Your task to perform on an android device: Open Youtube and go to the subscriptions tab Image 0: 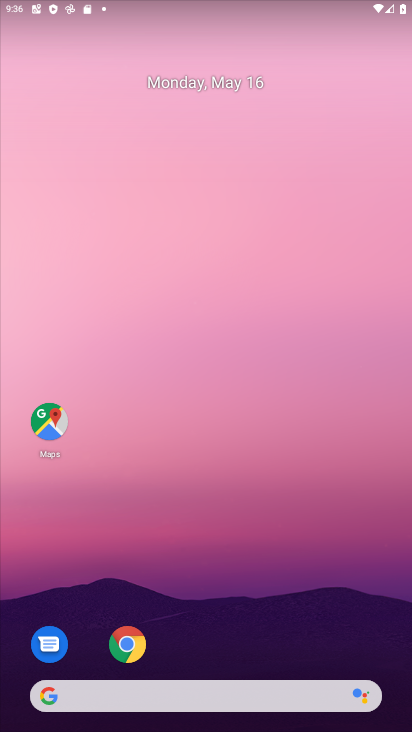
Step 0: drag from (235, 731) to (239, 14)
Your task to perform on an android device: Open Youtube and go to the subscriptions tab Image 1: 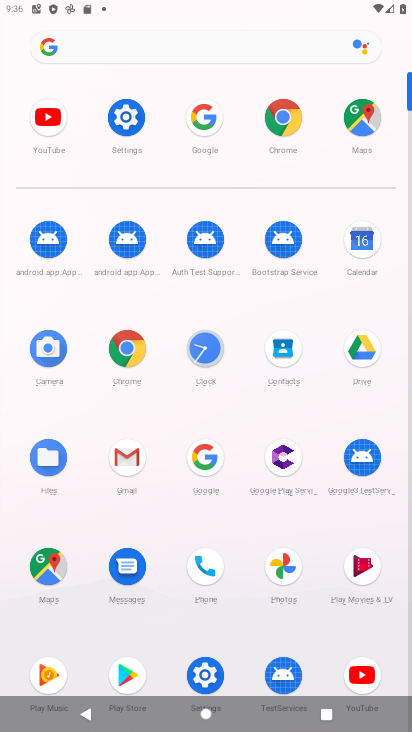
Step 1: click (353, 668)
Your task to perform on an android device: Open Youtube and go to the subscriptions tab Image 2: 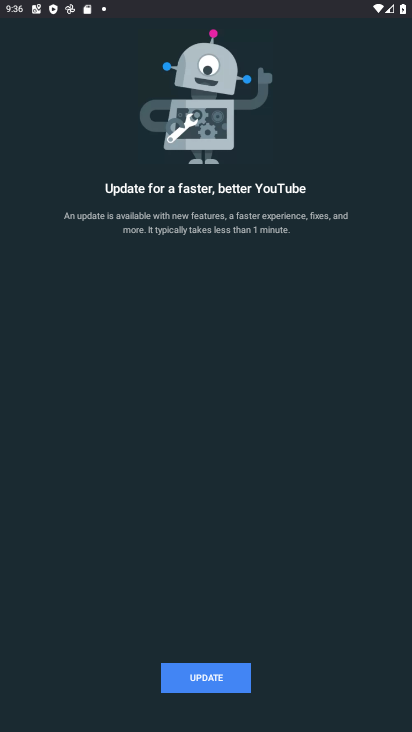
Step 2: click (188, 681)
Your task to perform on an android device: Open Youtube and go to the subscriptions tab Image 3: 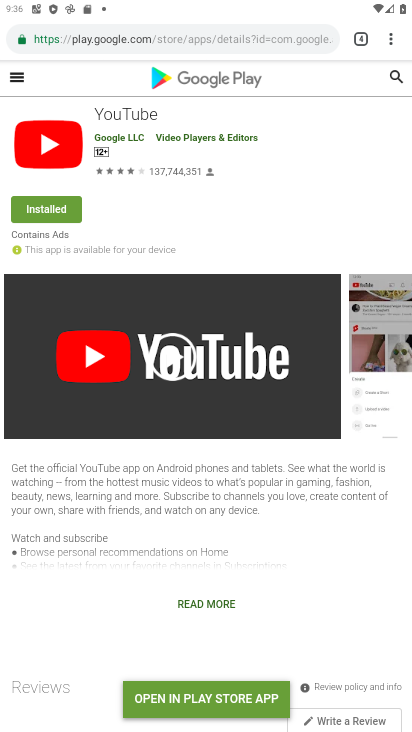
Step 3: click (252, 703)
Your task to perform on an android device: Open Youtube and go to the subscriptions tab Image 4: 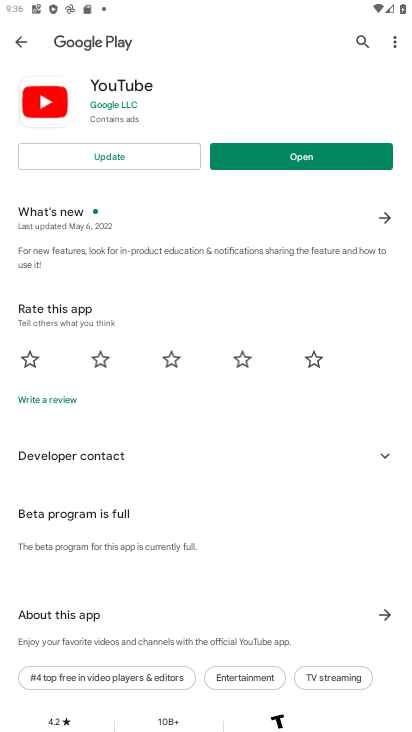
Step 4: click (162, 161)
Your task to perform on an android device: Open Youtube and go to the subscriptions tab Image 5: 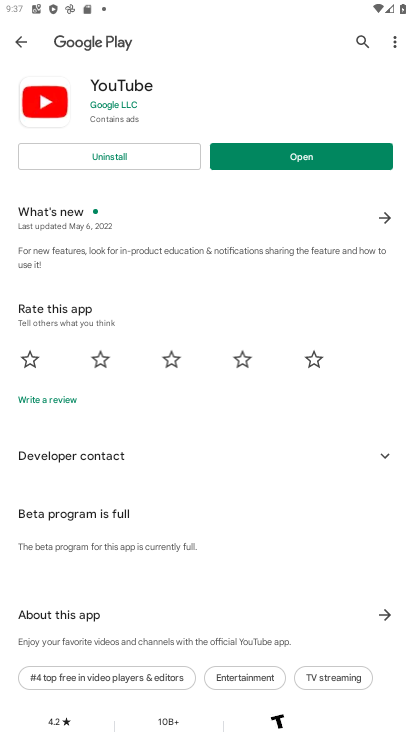
Step 5: click (286, 156)
Your task to perform on an android device: Open Youtube and go to the subscriptions tab Image 6: 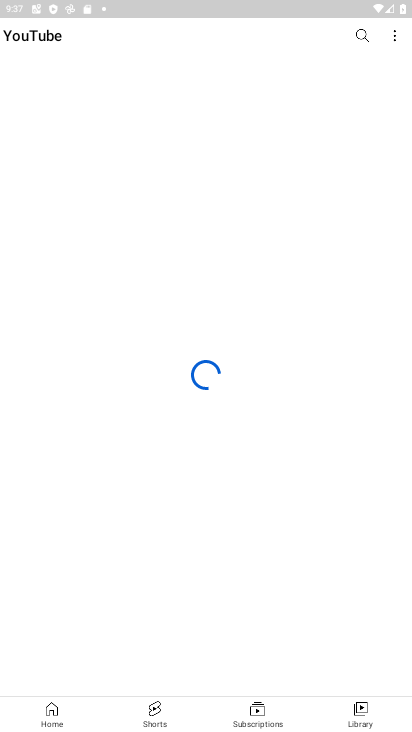
Step 6: click (256, 708)
Your task to perform on an android device: Open Youtube and go to the subscriptions tab Image 7: 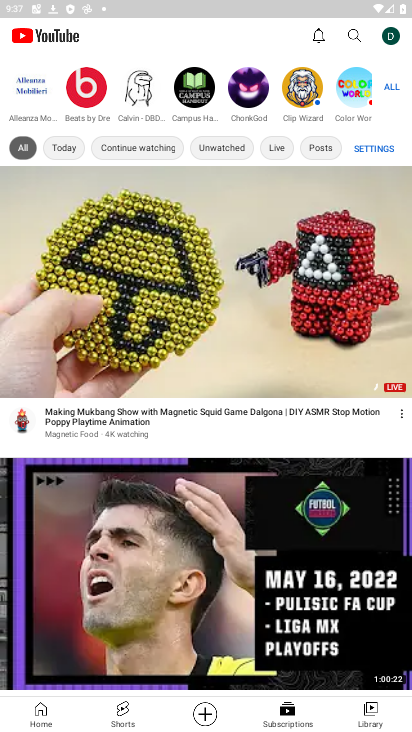
Step 7: task complete